Your task to perform on an android device: Open sound settings Image 0: 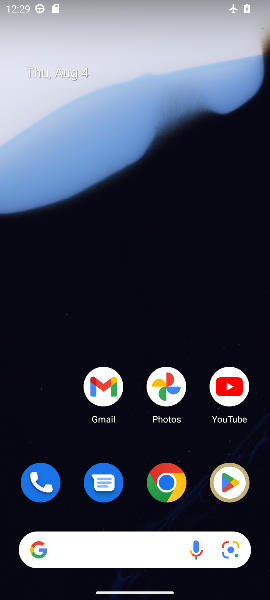
Step 0: drag from (127, 435) to (140, 90)
Your task to perform on an android device: Open sound settings Image 1: 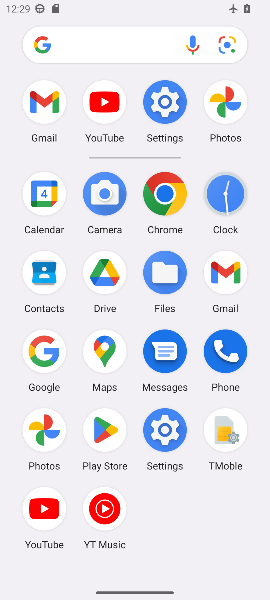
Step 1: click (164, 114)
Your task to perform on an android device: Open sound settings Image 2: 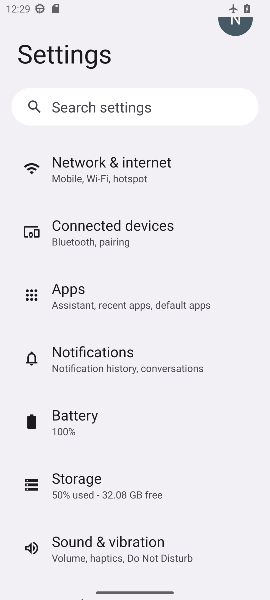
Step 2: click (122, 540)
Your task to perform on an android device: Open sound settings Image 3: 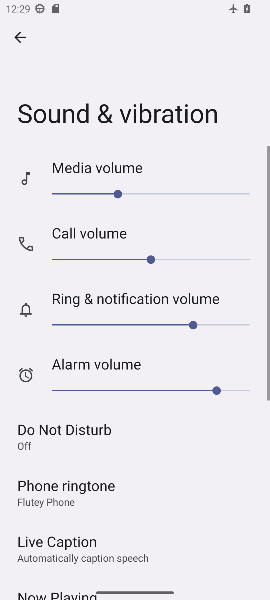
Step 3: task complete